Your task to perform on an android device: install app "Google Docs" Image 0: 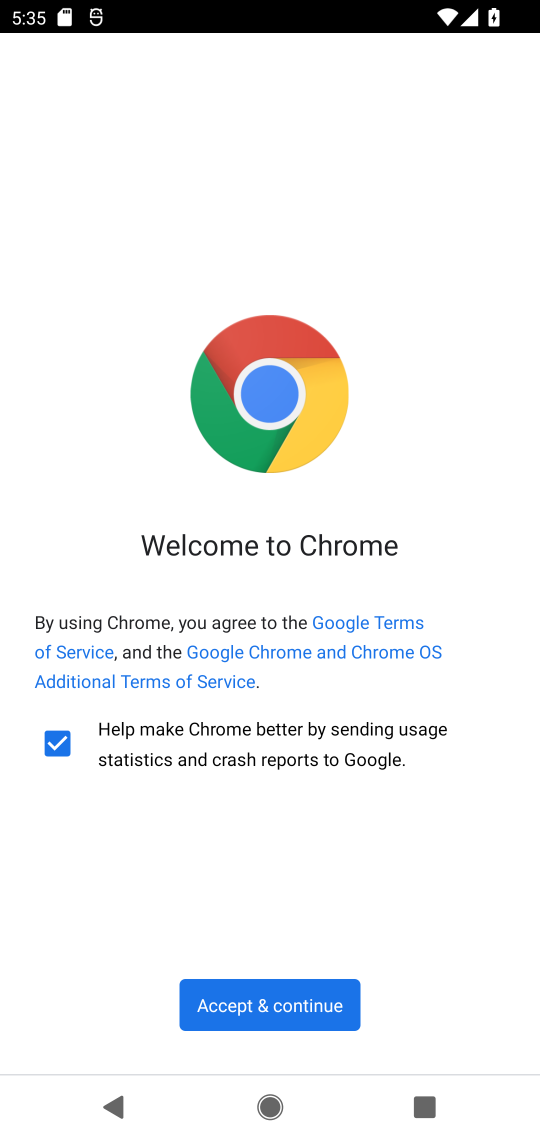
Step 0: press home button
Your task to perform on an android device: install app "Google Docs" Image 1: 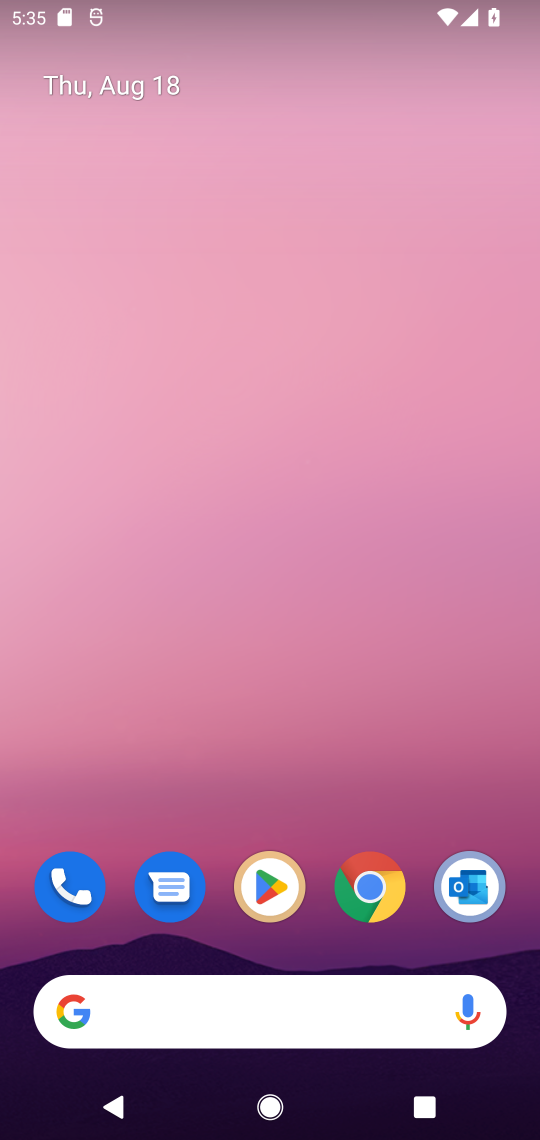
Step 1: click (262, 890)
Your task to perform on an android device: install app "Google Docs" Image 2: 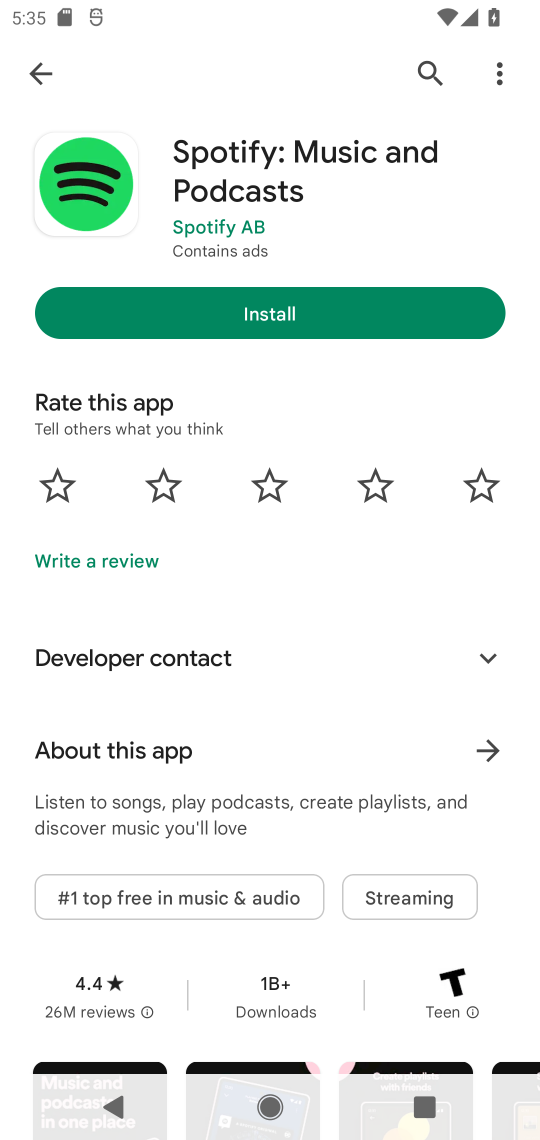
Step 2: click (424, 67)
Your task to perform on an android device: install app "Google Docs" Image 3: 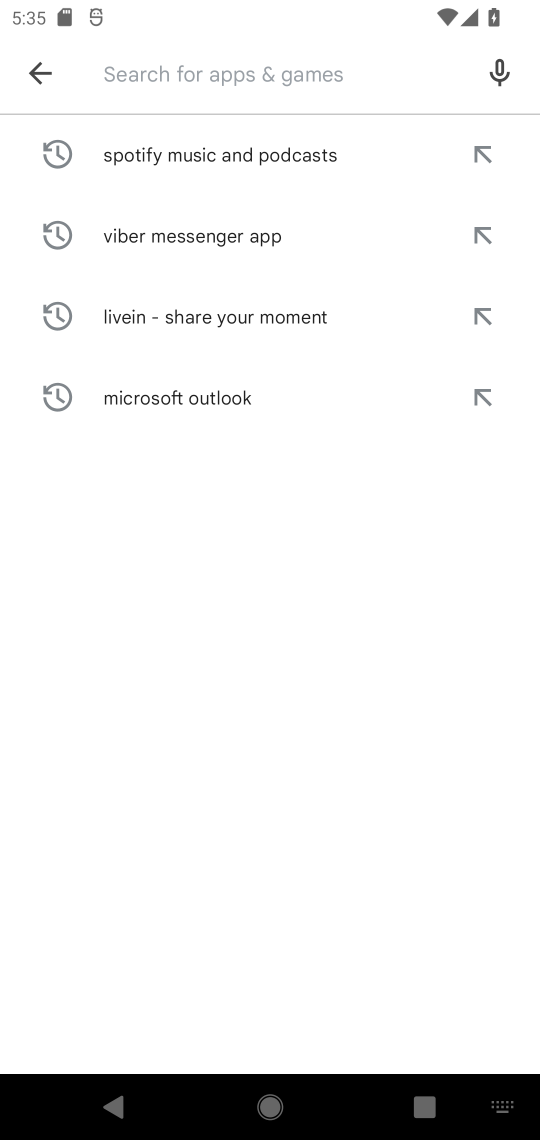
Step 3: type "Google Docs"
Your task to perform on an android device: install app "Google Docs" Image 4: 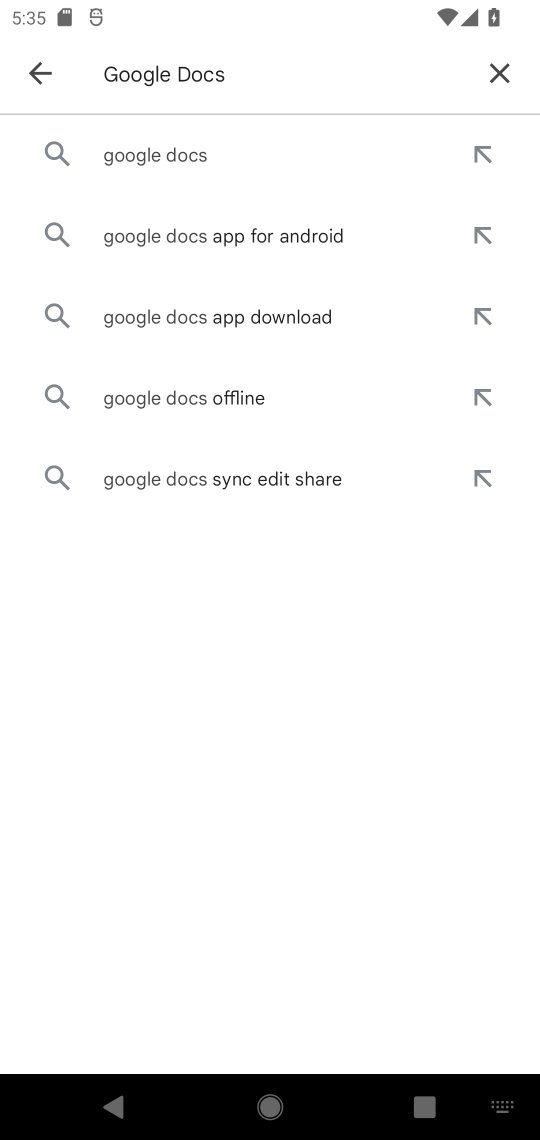
Step 4: click (151, 157)
Your task to perform on an android device: install app "Google Docs" Image 5: 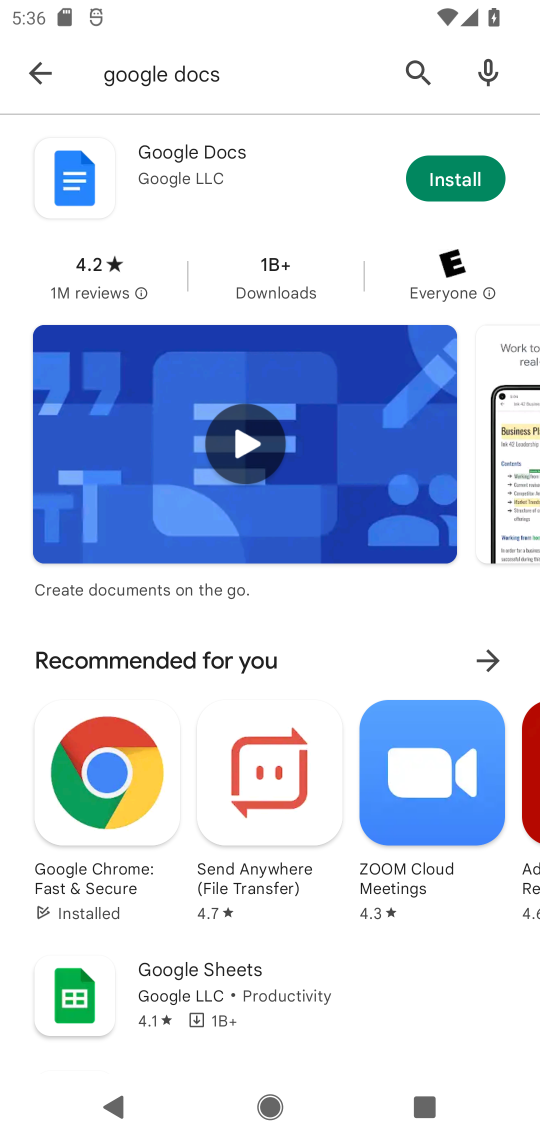
Step 5: click (445, 176)
Your task to perform on an android device: install app "Google Docs" Image 6: 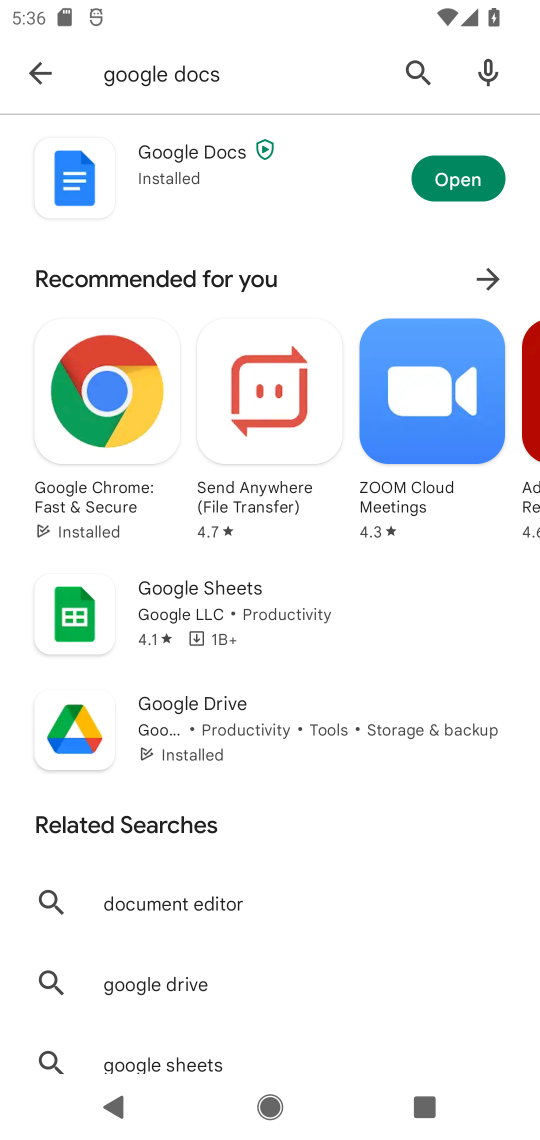
Step 6: task complete